Your task to perform on an android device: check android version Image 0: 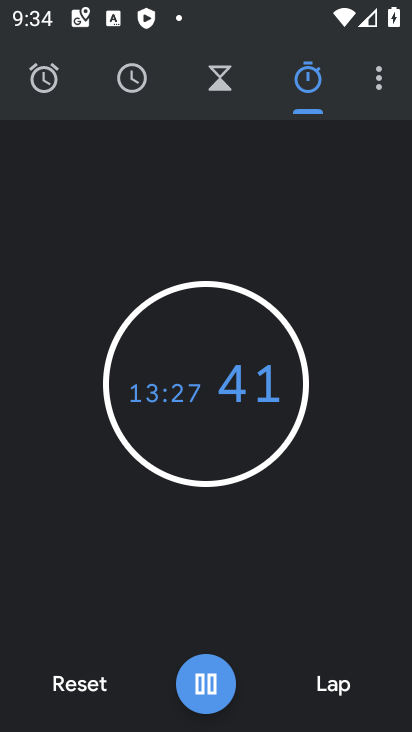
Step 0: press home button
Your task to perform on an android device: check android version Image 1: 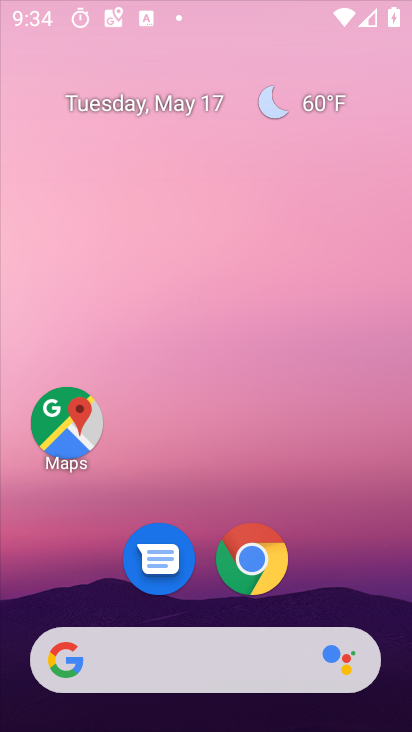
Step 1: drag from (239, 652) to (313, 104)
Your task to perform on an android device: check android version Image 2: 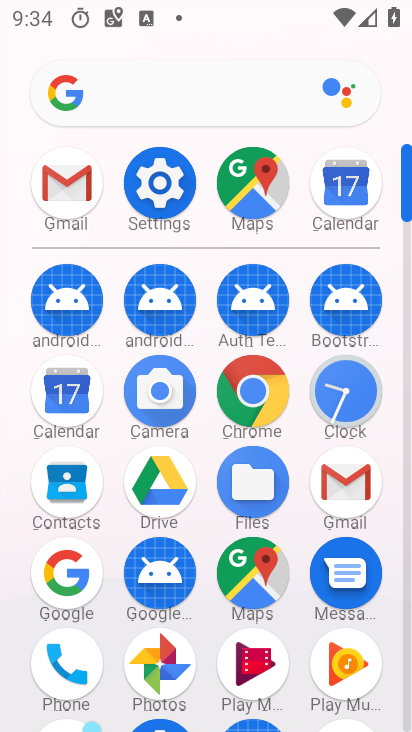
Step 2: click (182, 201)
Your task to perform on an android device: check android version Image 3: 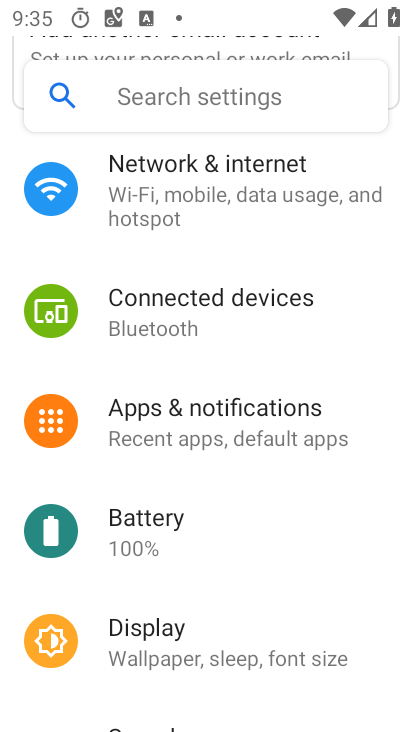
Step 3: drag from (219, 533) to (268, 198)
Your task to perform on an android device: check android version Image 4: 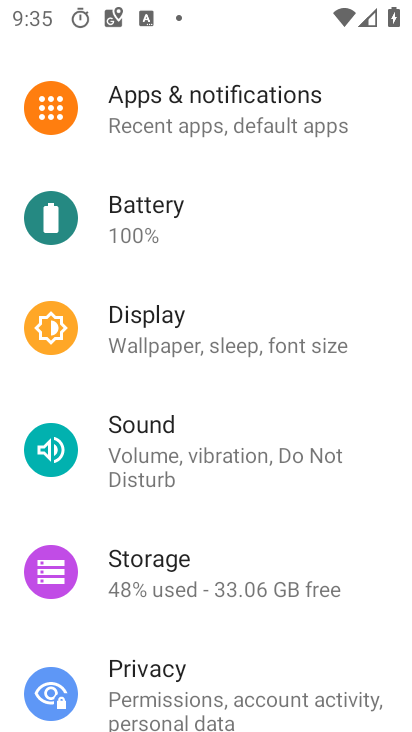
Step 4: drag from (220, 551) to (290, 192)
Your task to perform on an android device: check android version Image 5: 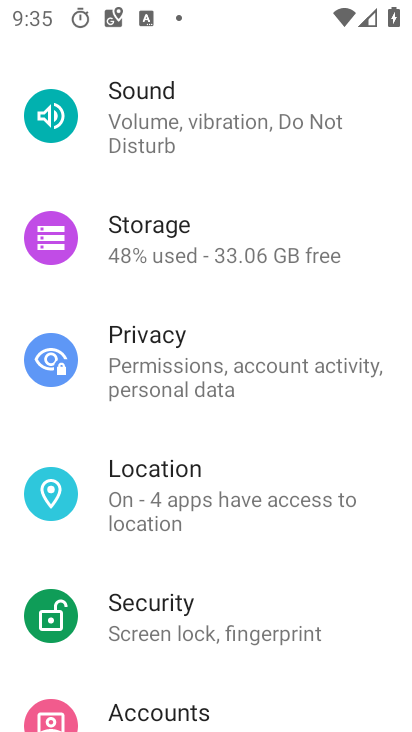
Step 5: drag from (213, 547) to (267, 236)
Your task to perform on an android device: check android version Image 6: 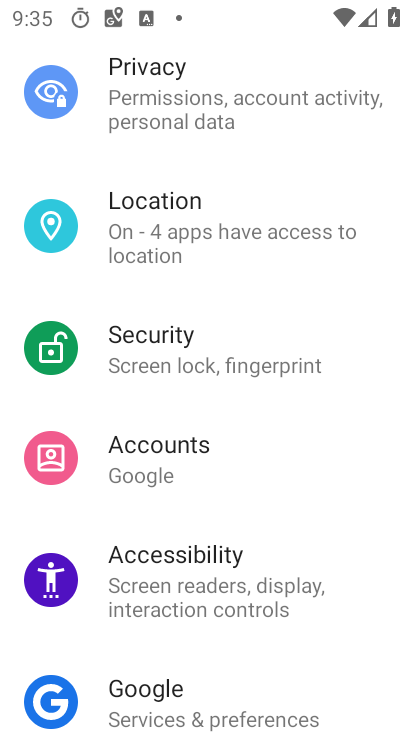
Step 6: drag from (189, 625) to (264, 202)
Your task to perform on an android device: check android version Image 7: 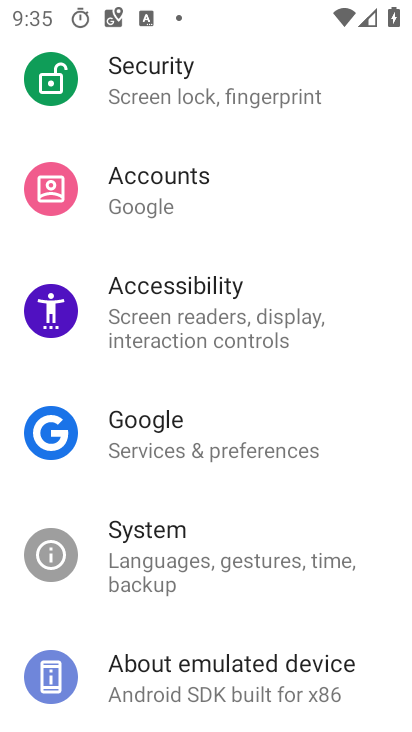
Step 7: drag from (217, 610) to (263, 324)
Your task to perform on an android device: check android version Image 8: 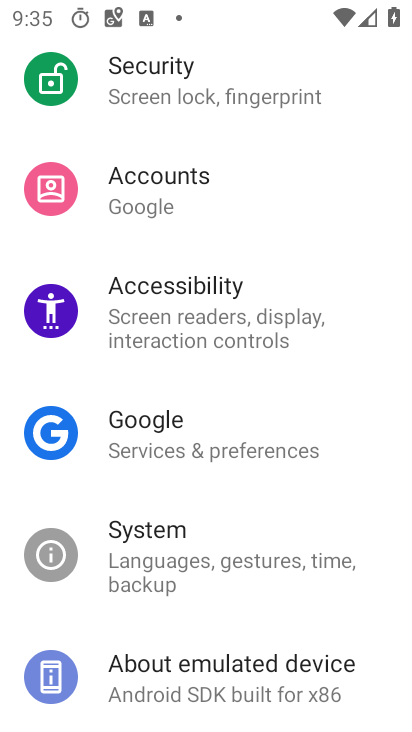
Step 8: click (190, 681)
Your task to perform on an android device: check android version Image 9: 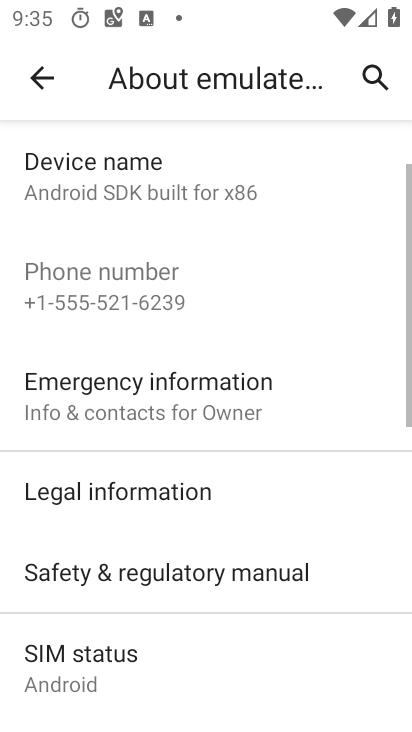
Step 9: drag from (206, 641) to (268, 328)
Your task to perform on an android device: check android version Image 10: 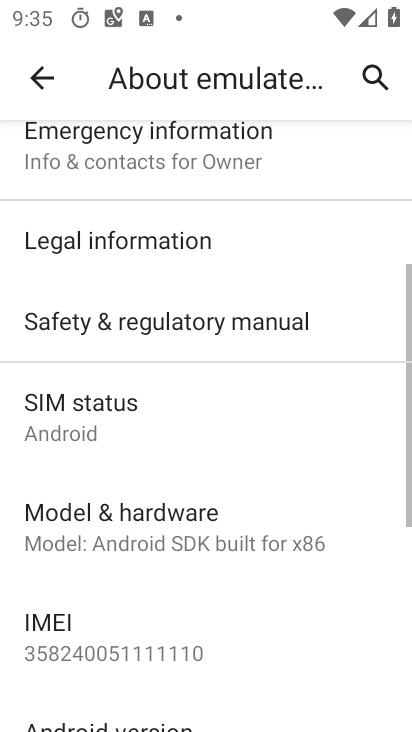
Step 10: drag from (187, 618) to (246, 318)
Your task to perform on an android device: check android version Image 11: 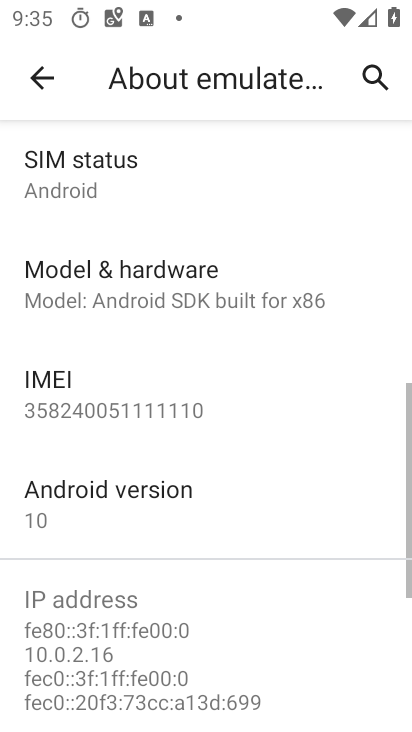
Step 11: click (166, 507)
Your task to perform on an android device: check android version Image 12: 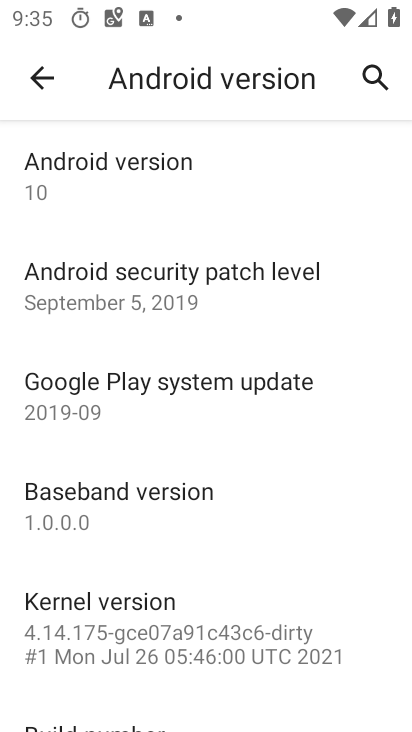
Step 12: click (292, 218)
Your task to perform on an android device: check android version Image 13: 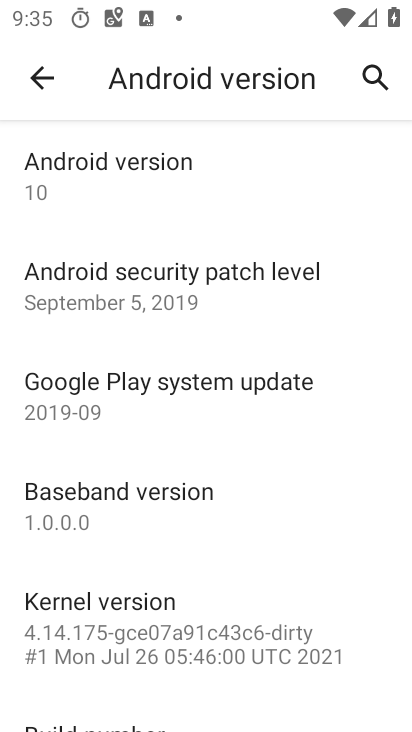
Step 13: task complete